Your task to perform on an android device: turn off notifications in google photos Image 0: 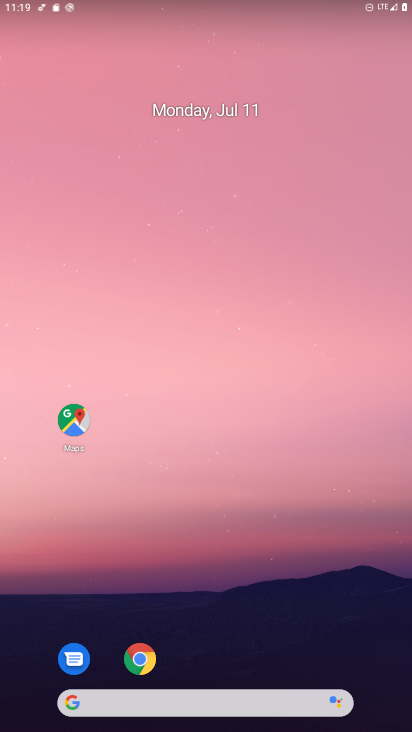
Step 0: drag from (301, 647) to (266, 194)
Your task to perform on an android device: turn off notifications in google photos Image 1: 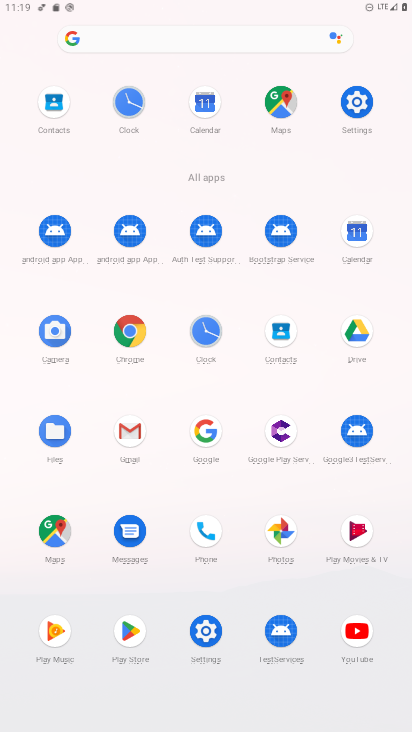
Step 1: click (279, 533)
Your task to perform on an android device: turn off notifications in google photos Image 2: 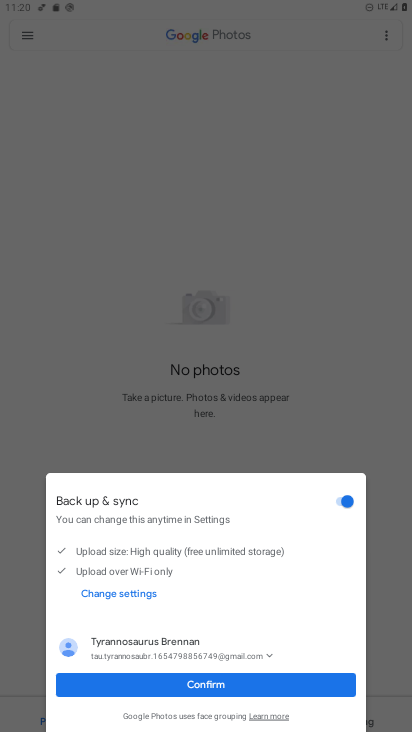
Step 2: click (295, 687)
Your task to perform on an android device: turn off notifications in google photos Image 3: 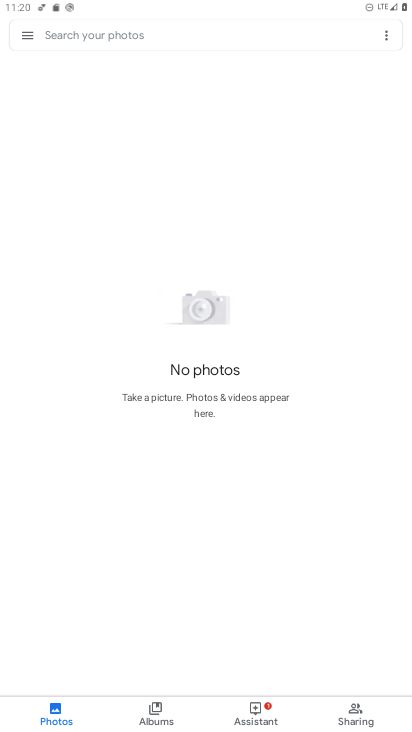
Step 3: click (32, 36)
Your task to perform on an android device: turn off notifications in google photos Image 4: 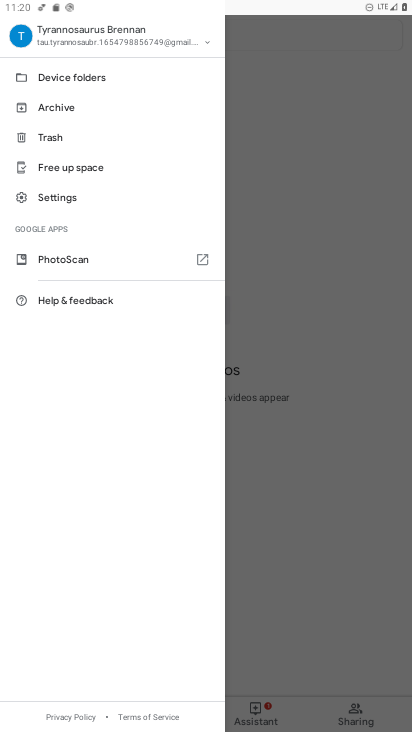
Step 4: click (100, 196)
Your task to perform on an android device: turn off notifications in google photos Image 5: 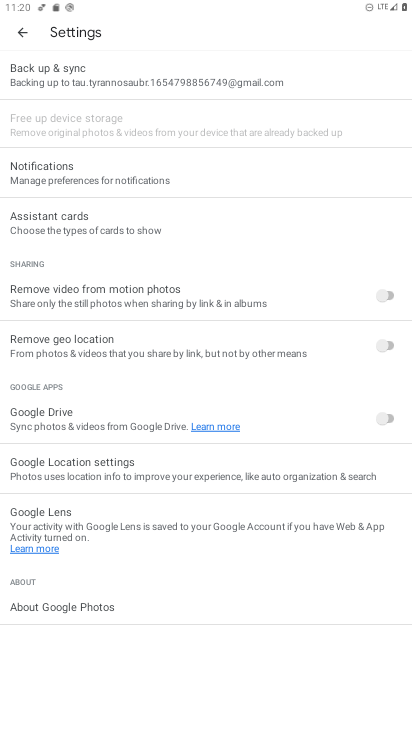
Step 5: click (272, 170)
Your task to perform on an android device: turn off notifications in google photos Image 6: 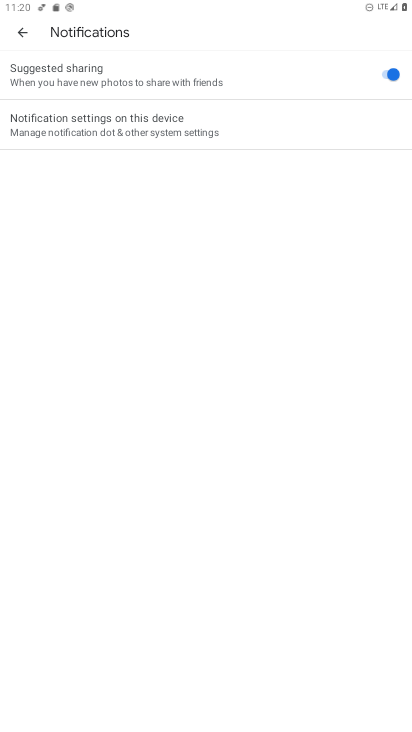
Step 6: click (281, 135)
Your task to perform on an android device: turn off notifications in google photos Image 7: 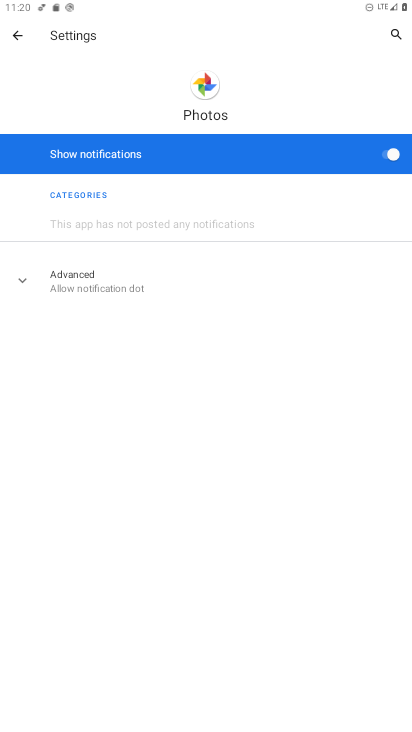
Step 7: click (389, 155)
Your task to perform on an android device: turn off notifications in google photos Image 8: 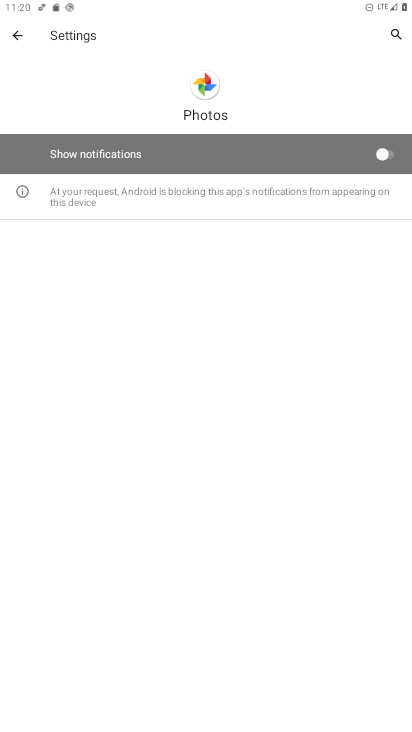
Step 8: task complete